Your task to perform on an android device: Open Chrome and go to the settings page Image 0: 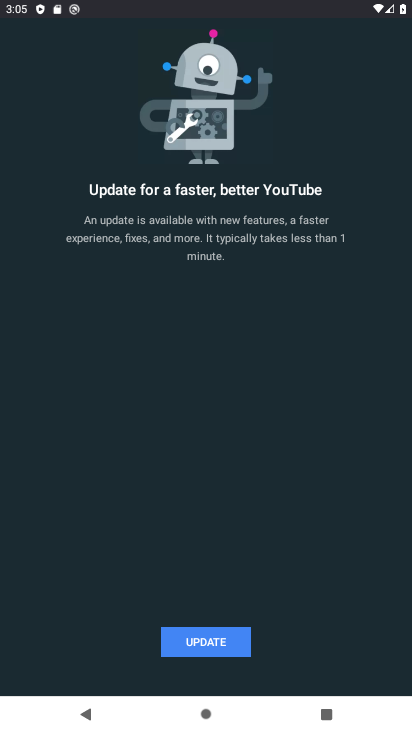
Step 0: press home button
Your task to perform on an android device: Open Chrome and go to the settings page Image 1: 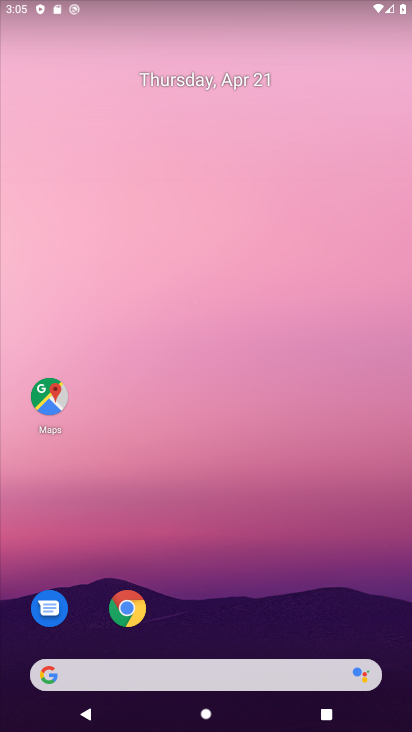
Step 1: drag from (213, 607) to (247, 263)
Your task to perform on an android device: Open Chrome and go to the settings page Image 2: 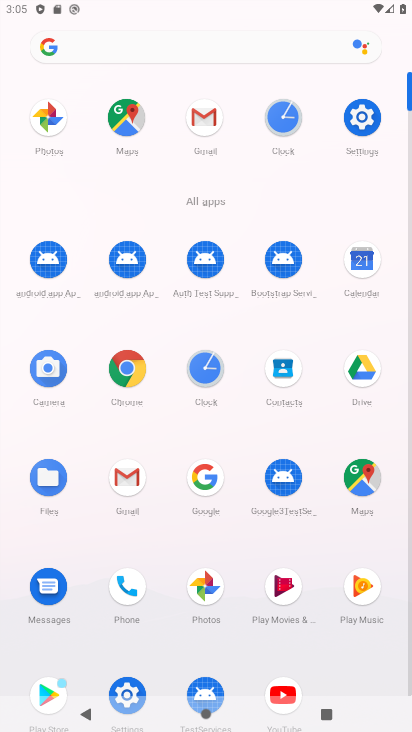
Step 2: click (134, 378)
Your task to perform on an android device: Open Chrome and go to the settings page Image 3: 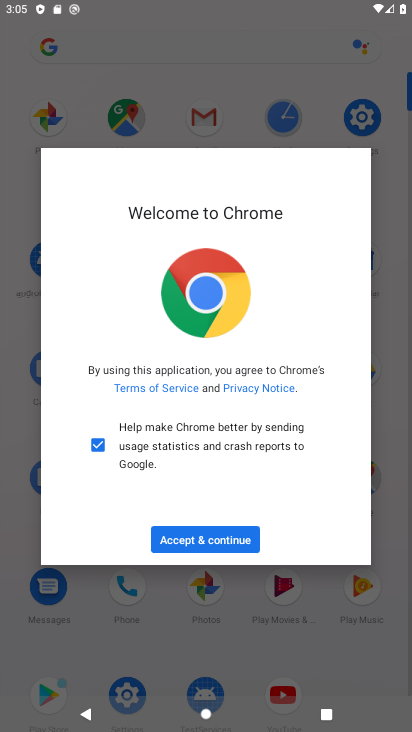
Step 3: click (218, 528)
Your task to perform on an android device: Open Chrome and go to the settings page Image 4: 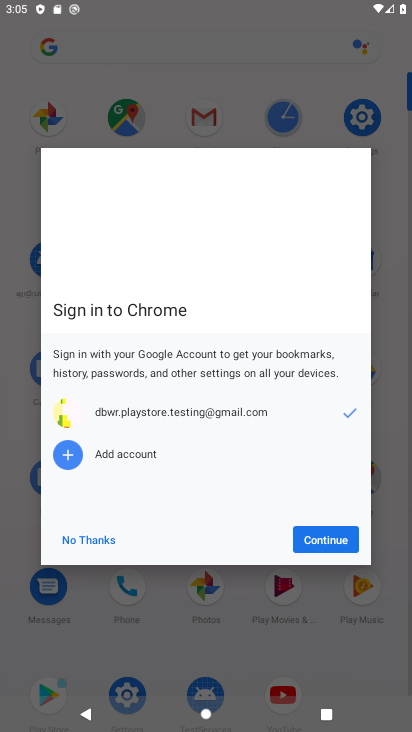
Step 4: click (337, 549)
Your task to perform on an android device: Open Chrome and go to the settings page Image 5: 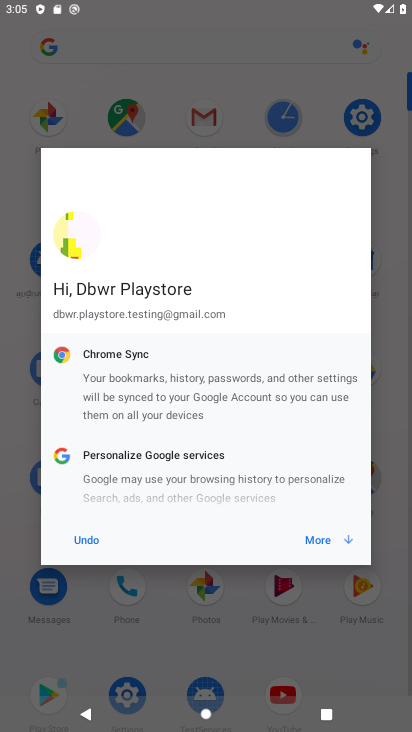
Step 5: click (329, 539)
Your task to perform on an android device: Open Chrome and go to the settings page Image 6: 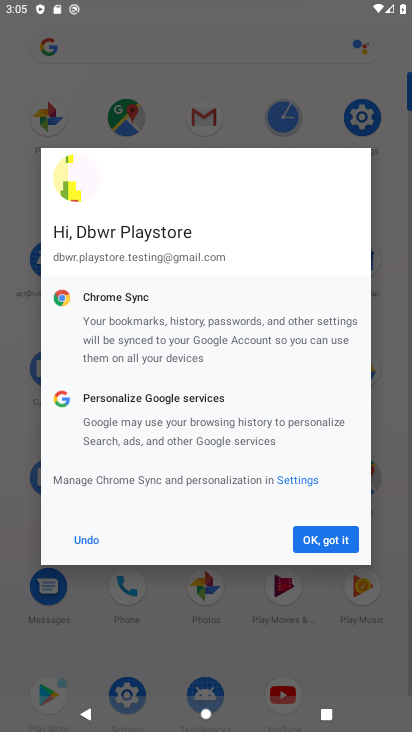
Step 6: click (329, 539)
Your task to perform on an android device: Open Chrome and go to the settings page Image 7: 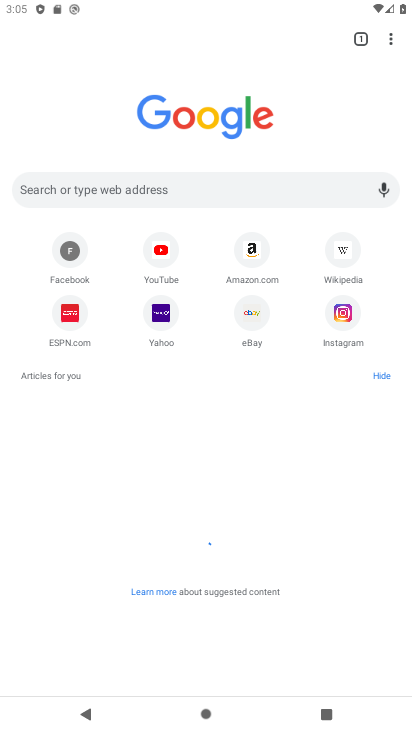
Step 7: task complete